Your task to perform on an android device: Open battery settings Image 0: 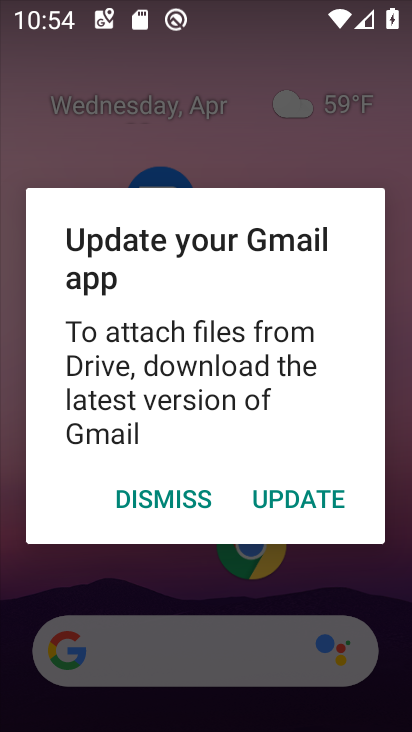
Step 0: press home button
Your task to perform on an android device: Open battery settings Image 1: 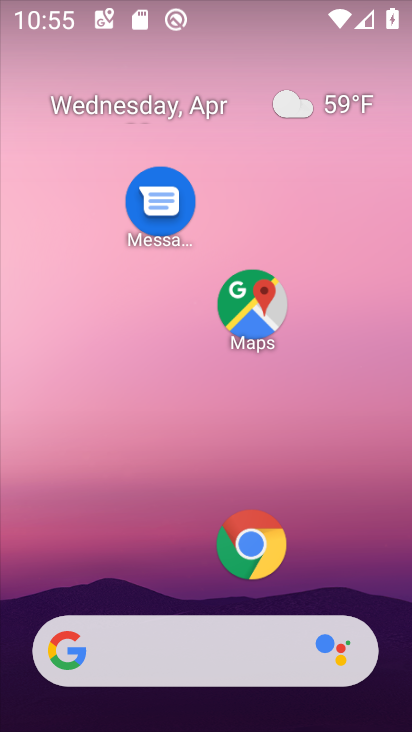
Step 1: drag from (194, 445) to (195, 158)
Your task to perform on an android device: Open battery settings Image 2: 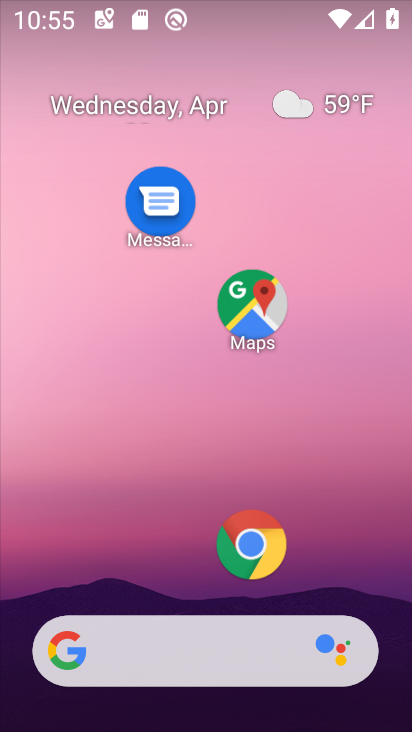
Step 2: drag from (186, 598) to (194, 100)
Your task to perform on an android device: Open battery settings Image 3: 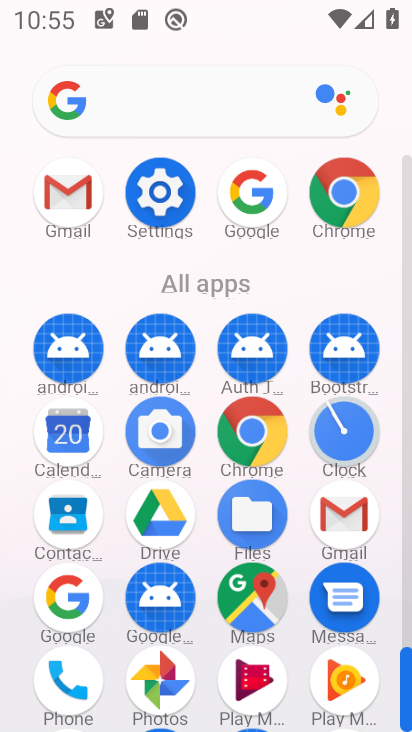
Step 3: click (175, 177)
Your task to perform on an android device: Open battery settings Image 4: 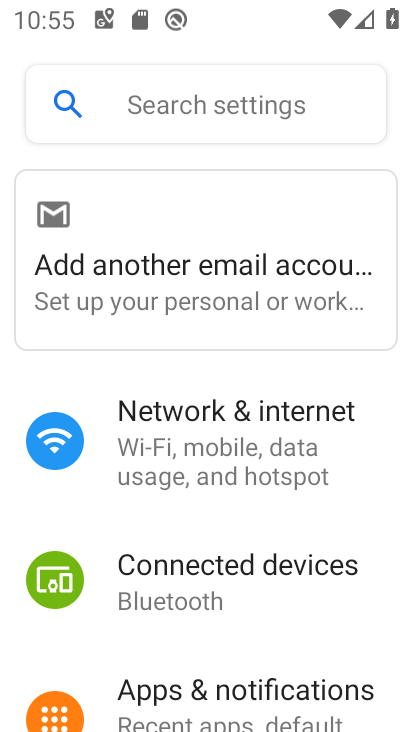
Step 4: drag from (237, 623) to (263, 193)
Your task to perform on an android device: Open battery settings Image 5: 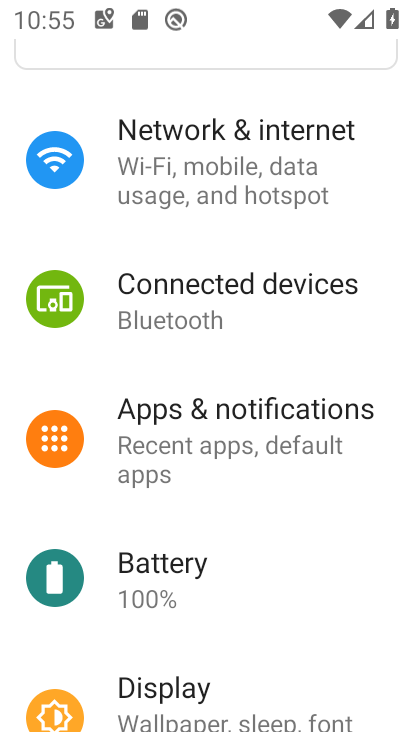
Step 5: click (179, 562)
Your task to perform on an android device: Open battery settings Image 6: 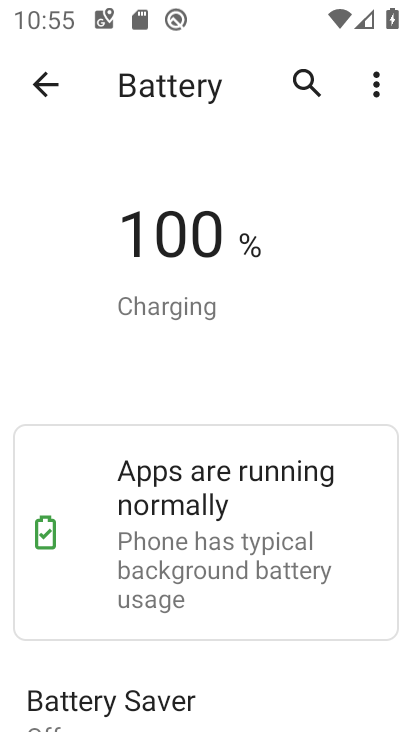
Step 6: task complete